Your task to perform on an android device: find which apps use the phone's location Image 0: 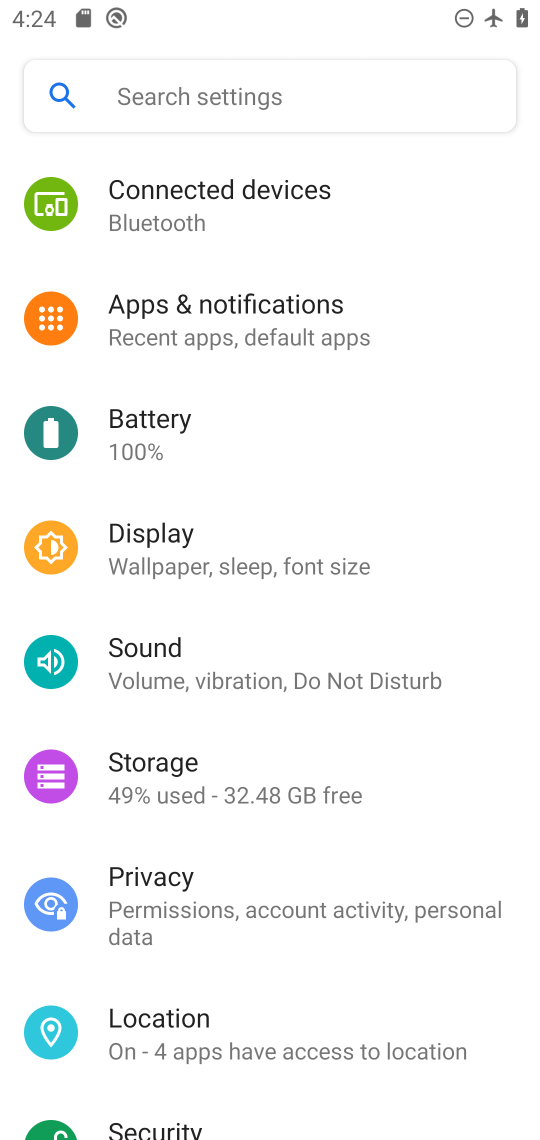
Step 0: click (226, 1026)
Your task to perform on an android device: find which apps use the phone's location Image 1: 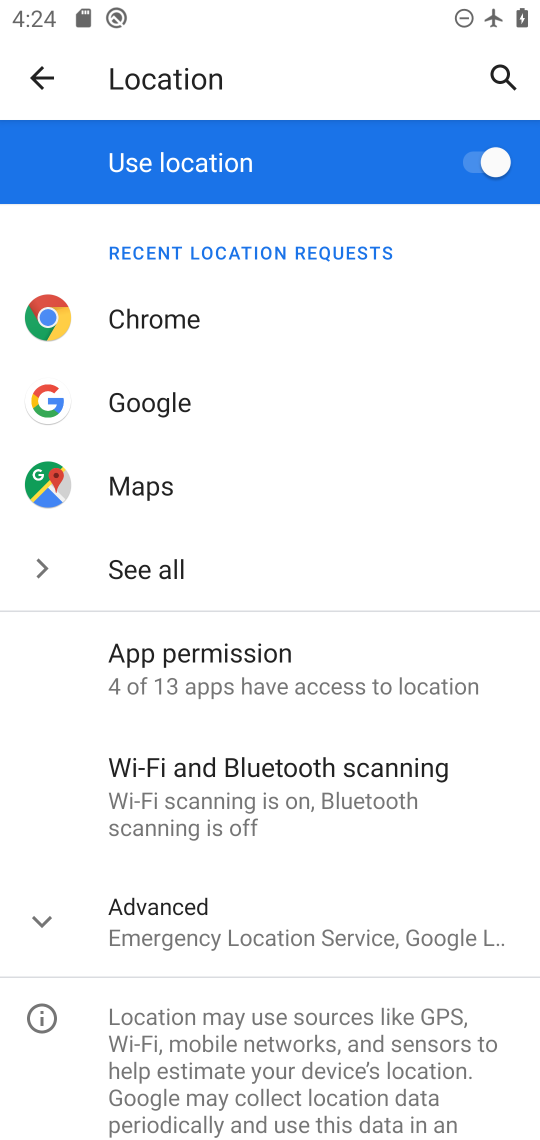
Step 1: click (188, 703)
Your task to perform on an android device: find which apps use the phone's location Image 2: 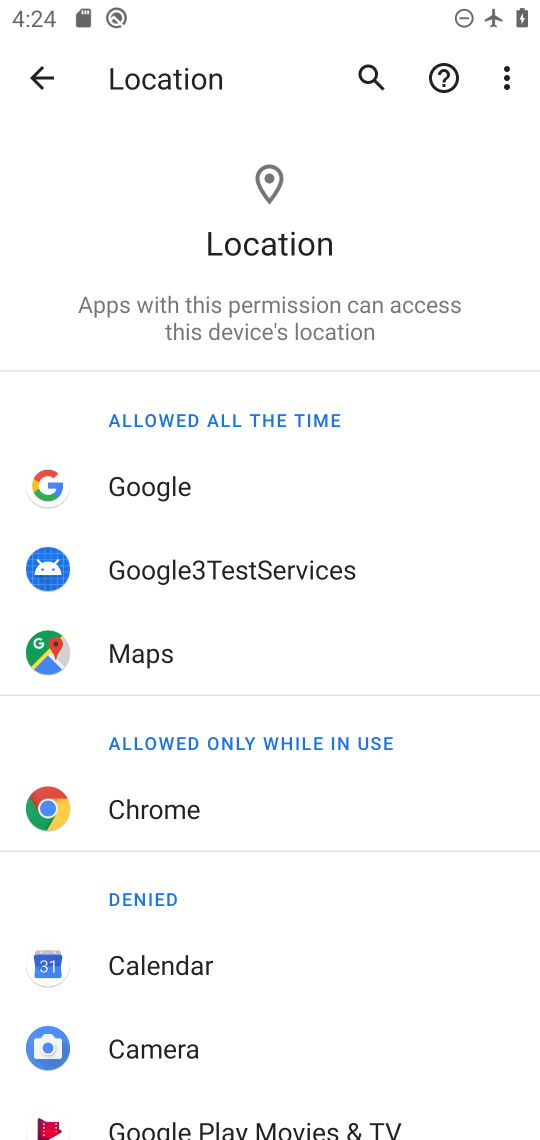
Step 2: task complete